Your task to perform on an android device: open sync settings in chrome Image 0: 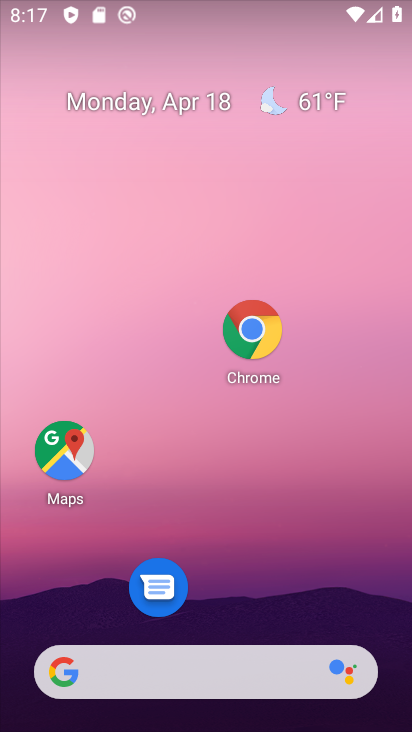
Step 0: drag from (296, 562) to (296, 314)
Your task to perform on an android device: open sync settings in chrome Image 1: 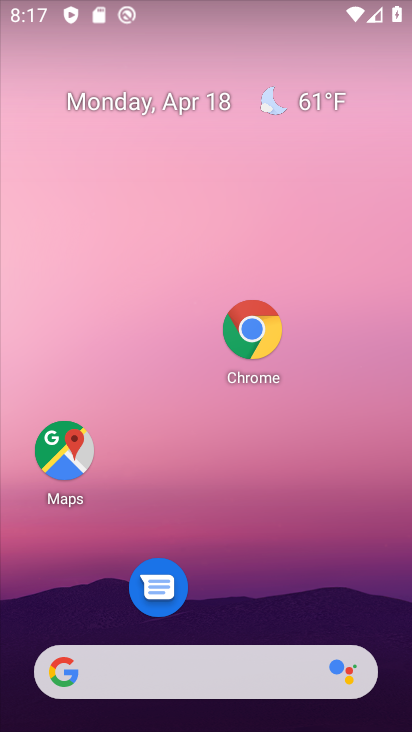
Step 1: drag from (306, 599) to (341, 95)
Your task to perform on an android device: open sync settings in chrome Image 2: 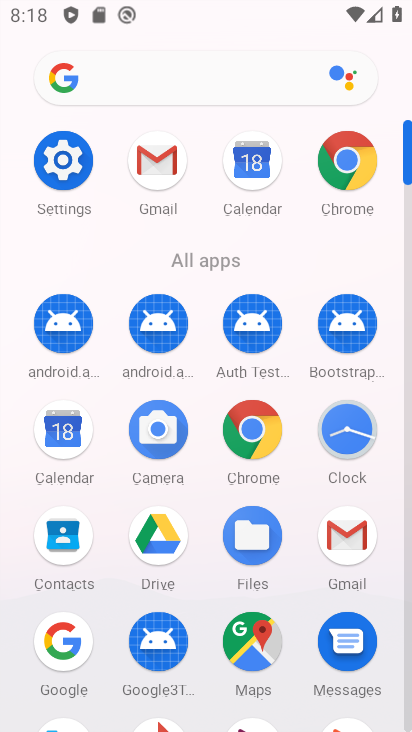
Step 2: click (336, 163)
Your task to perform on an android device: open sync settings in chrome Image 3: 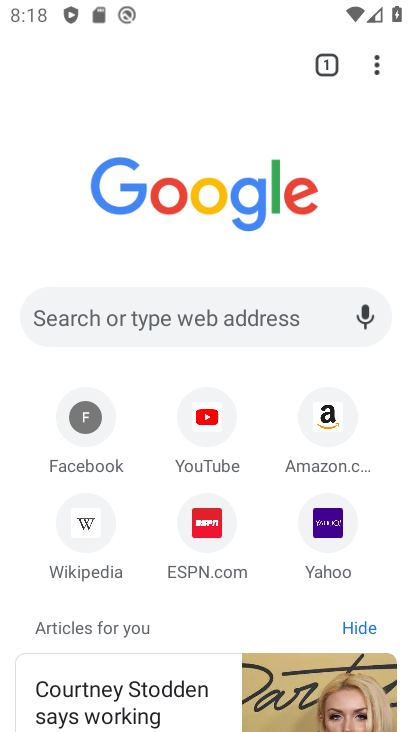
Step 3: click (383, 53)
Your task to perform on an android device: open sync settings in chrome Image 4: 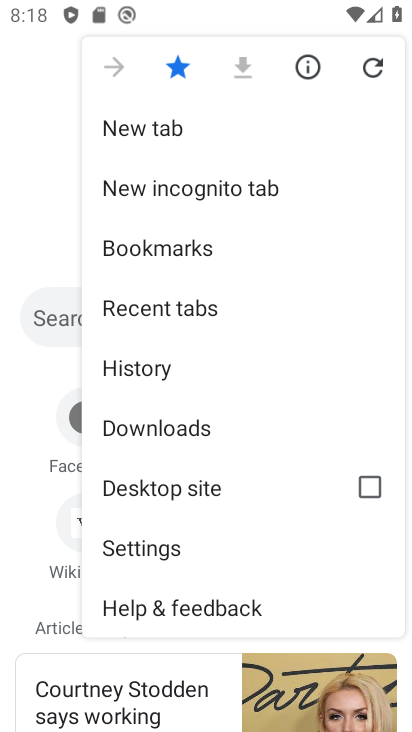
Step 4: click (182, 556)
Your task to perform on an android device: open sync settings in chrome Image 5: 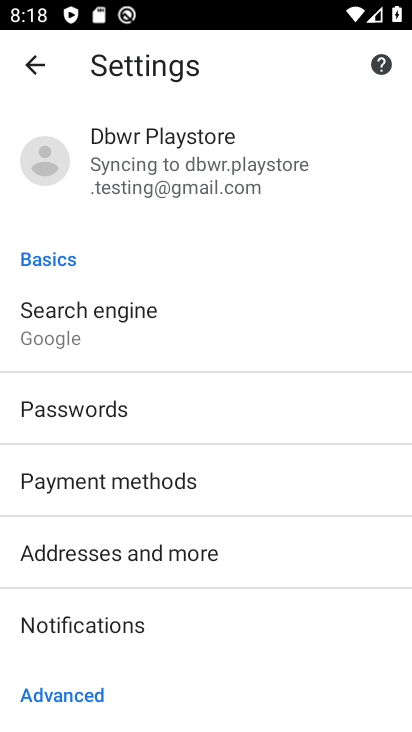
Step 5: click (264, 159)
Your task to perform on an android device: open sync settings in chrome Image 6: 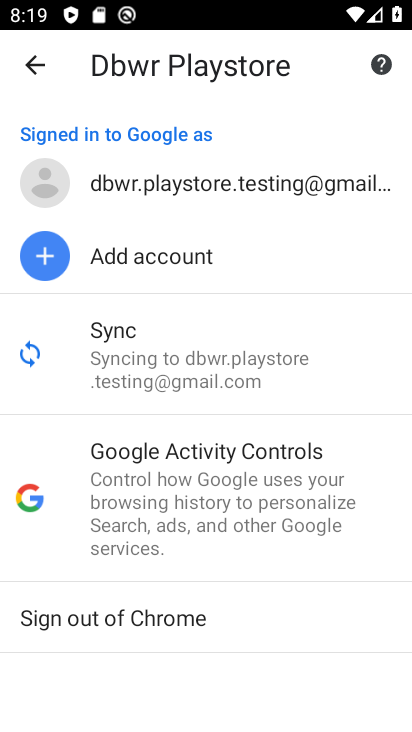
Step 6: click (273, 336)
Your task to perform on an android device: open sync settings in chrome Image 7: 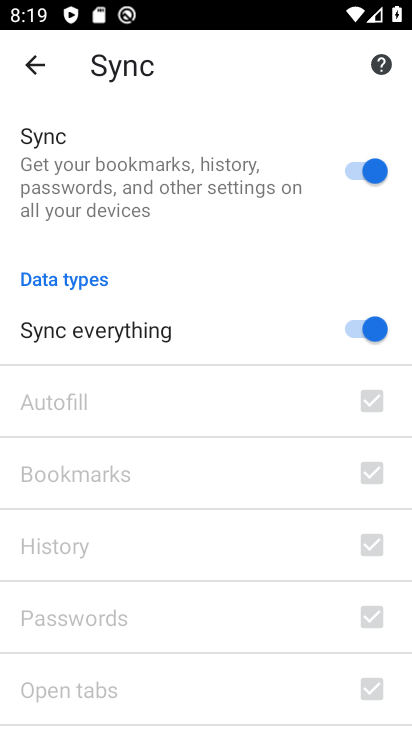
Step 7: task complete